Your task to perform on an android device: Open notification settings Image 0: 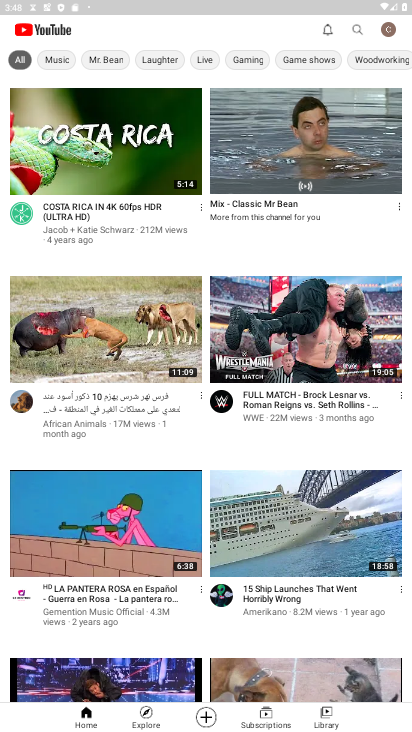
Step 0: press home button
Your task to perform on an android device: Open notification settings Image 1: 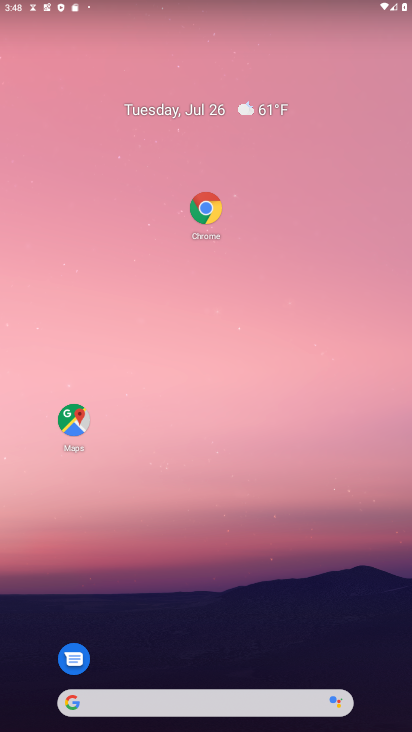
Step 1: drag from (169, 621) to (32, 195)
Your task to perform on an android device: Open notification settings Image 2: 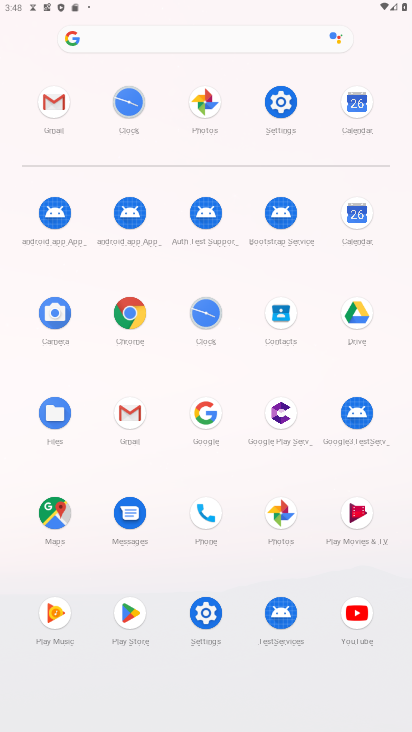
Step 2: click (278, 94)
Your task to perform on an android device: Open notification settings Image 3: 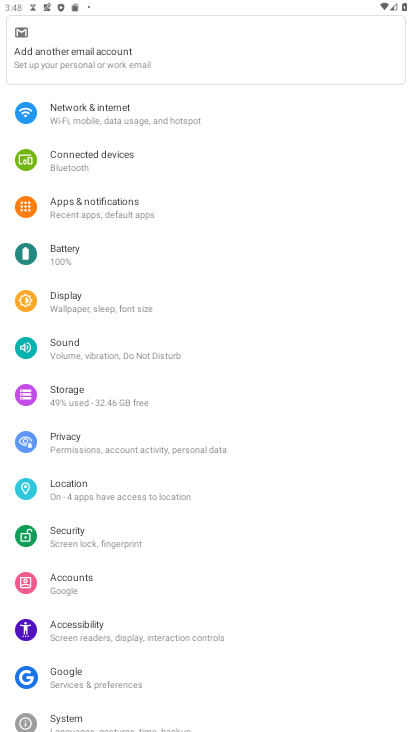
Step 3: click (73, 209)
Your task to perform on an android device: Open notification settings Image 4: 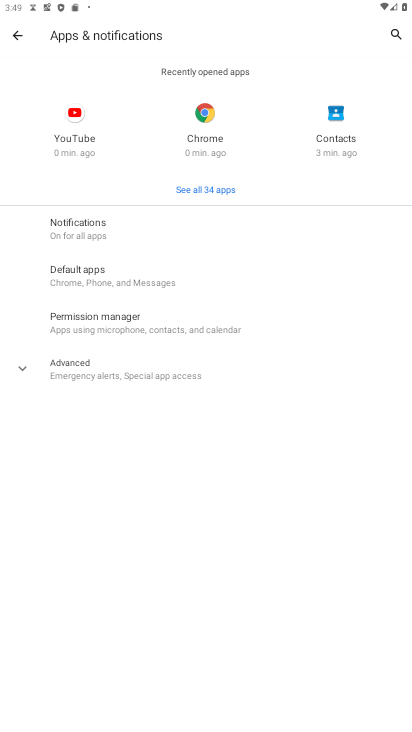
Step 4: click (94, 228)
Your task to perform on an android device: Open notification settings Image 5: 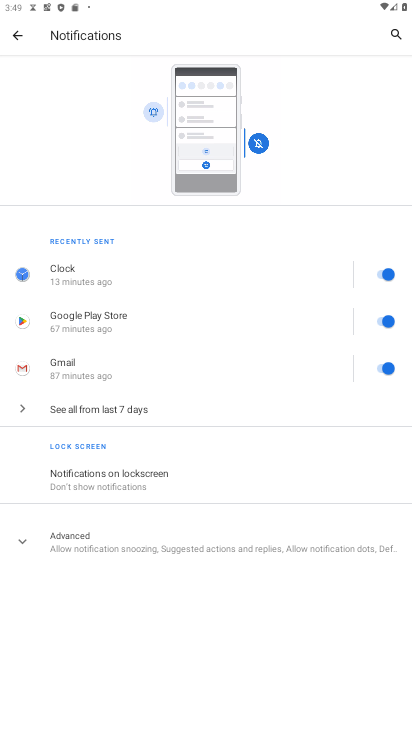
Step 5: task complete